Your task to perform on an android device: Open eBay Image 0: 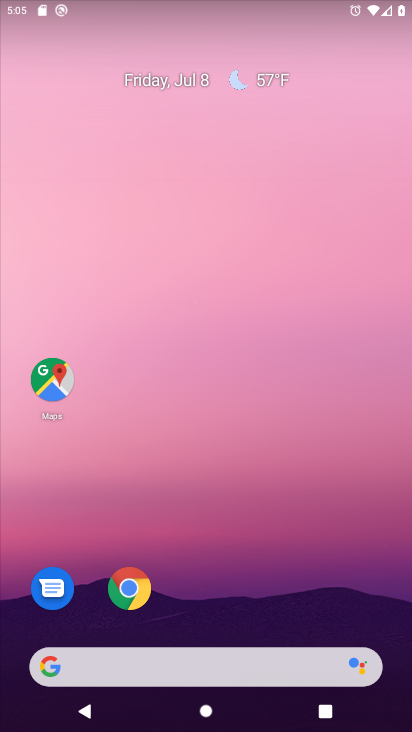
Step 0: drag from (272, 472) to (272, 194)
Your task to perform on an android device: Open eBay Image 1: 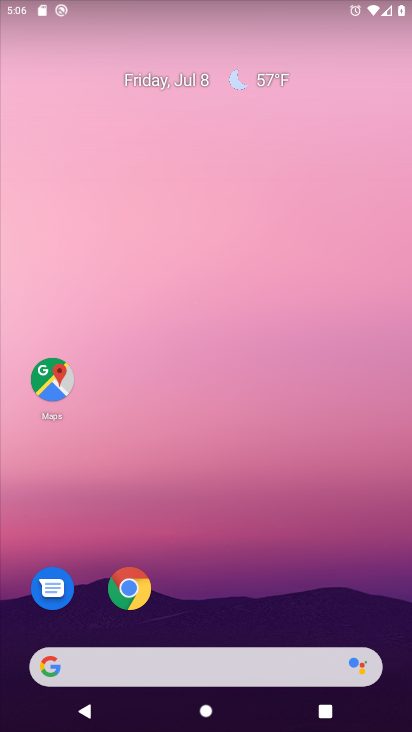
Step 1: drag from (244, 724) to (200, 120)
Your task to perform on an android device: Open eBay Image 2: 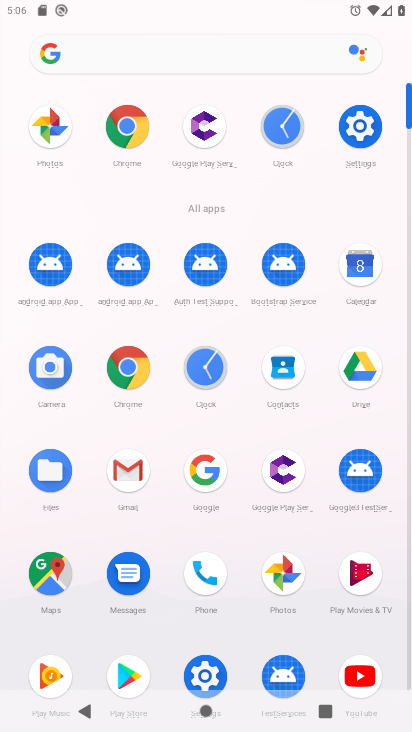
Step 2: click (139, 374)
Your task to perform on an android device: Open eBay Image 3: 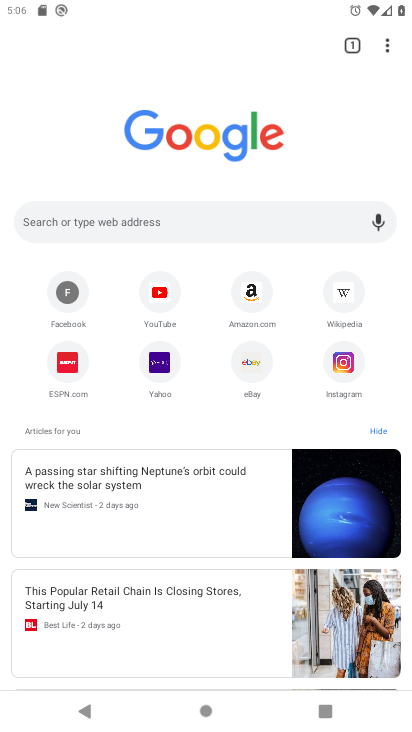
Step 3: click (236, 351)
Your task to perform on an android device: Open eBay Image 4: 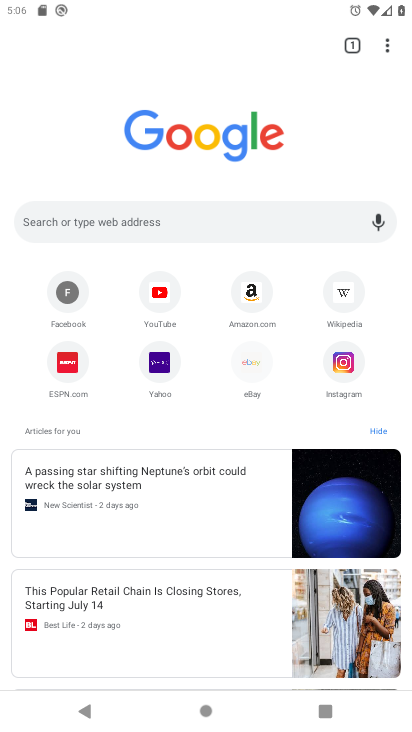
Step 4: click (241, 356)
Your task to perform on an android device: Open eBay Image 5: 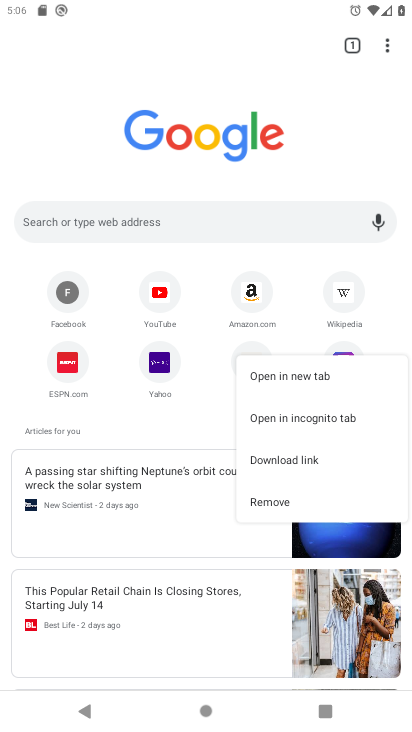
Step 5: click (240, 357)
Your task to perform on an android device: Open eBay Image 6: 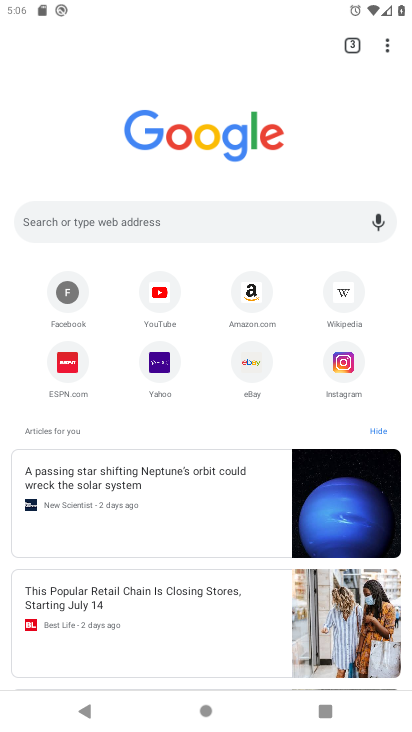
Step 6: click (242, 345)
Your task to perform on an android device: Open eBay Image 7: 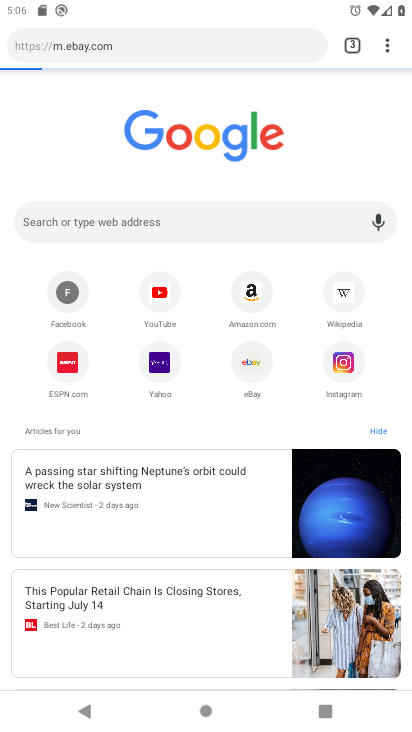
Step 7: click (244, 359)
Your task to perform on an android device: Open eBay Image 8: 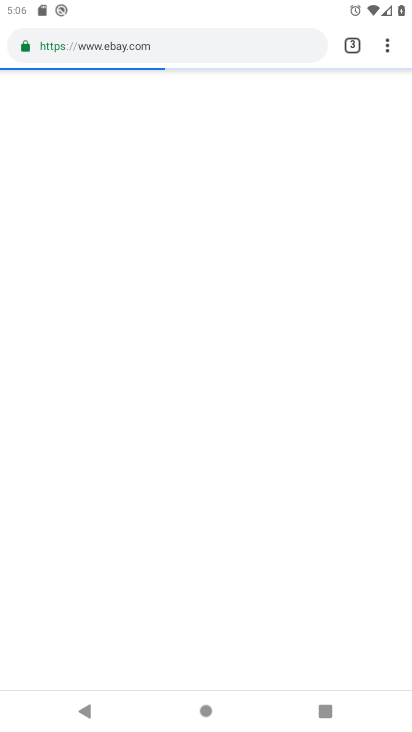
Step 8: click (248, 362)
Your task to perform on an android device: Open eBay Image 9: 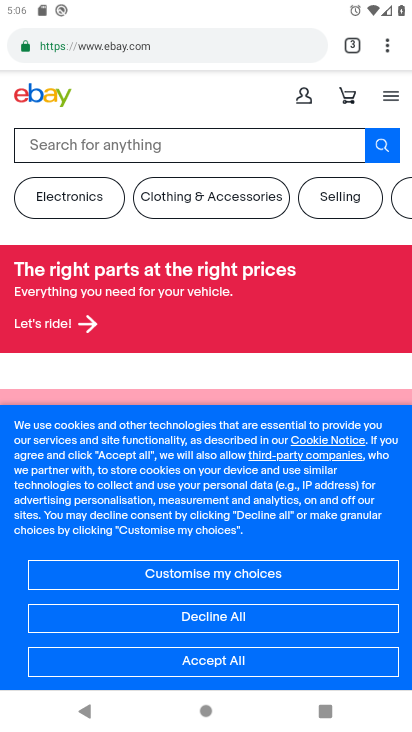
Step 9: task complete